Your task to perform on an android device: Go to Google maps Image 0: 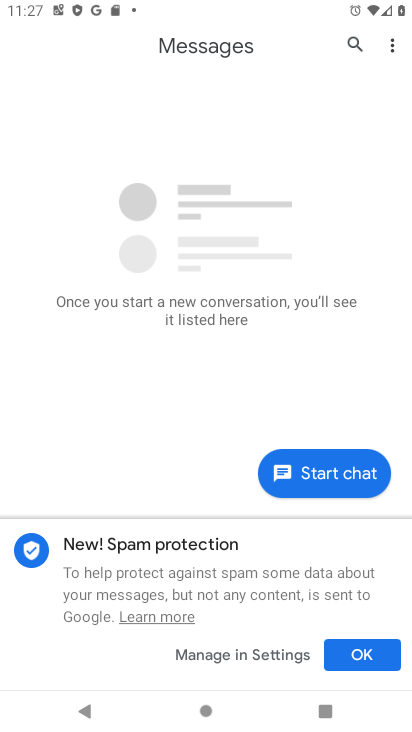
Step 0: press home button
Your task to perform on an android device: Go to Google maps Image 1: 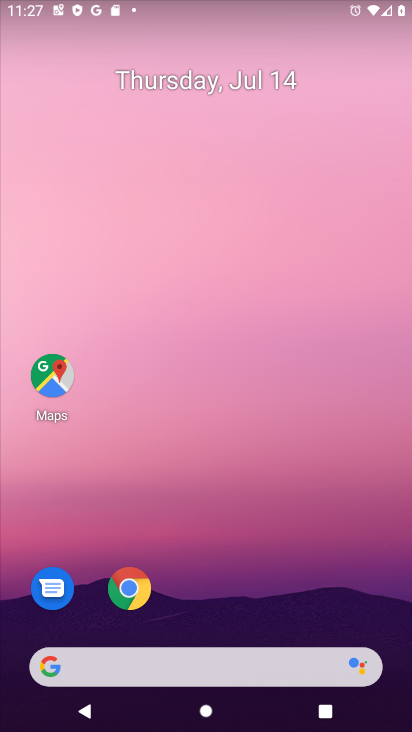
Step 1: click (53, 407)
Your task to perform on an android device: Go to Google maps Image 2: 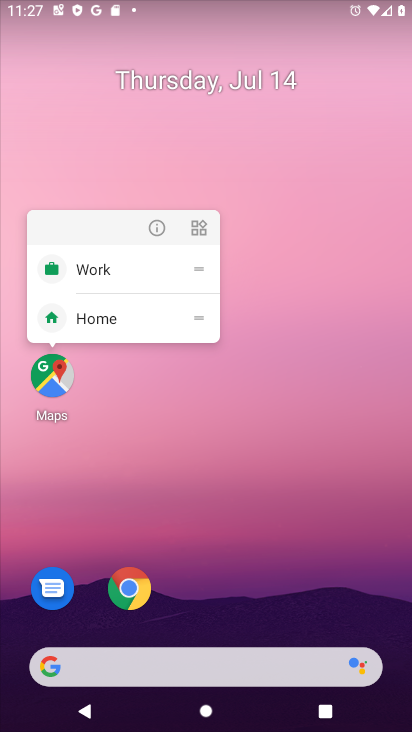
Step 2: click (43, 377)
Your task to perform on an android device: Go to Google maps Image 3: 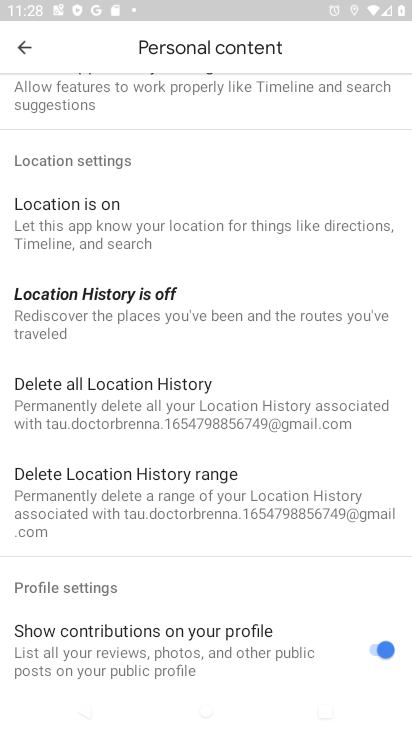
Step 3: task complete